Your task to perform on an android device: Show me popular videos on Youtube Image 0: 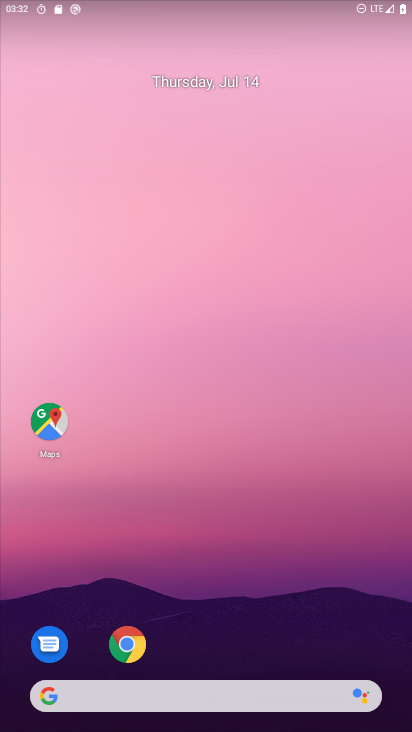
Step 0: click (294, 113)
Your task to perform on an android device: Show me popular videos on Youtube Image 1: 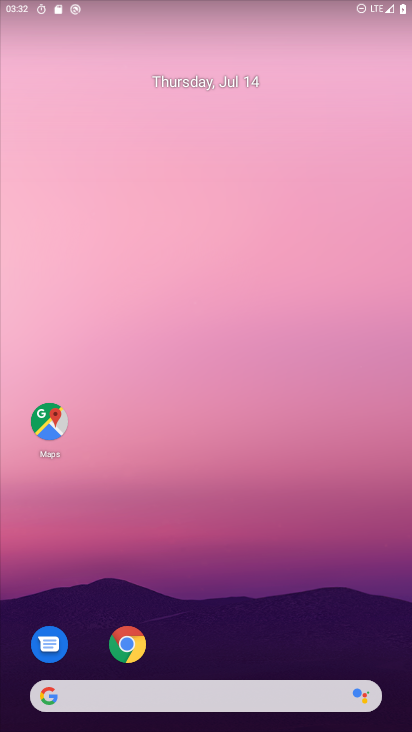
Step 1: drag from (219, 614) to (233, 0)
Your task to perform on an android device: Show me popular videos on Youtube Image 2: 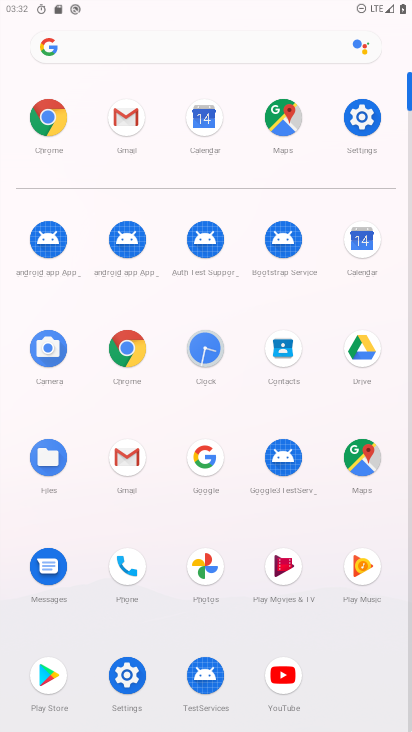
Step 2: click (287, 678)
Your task to perform on an android device: Show me popular videos on Youtube Image 3: 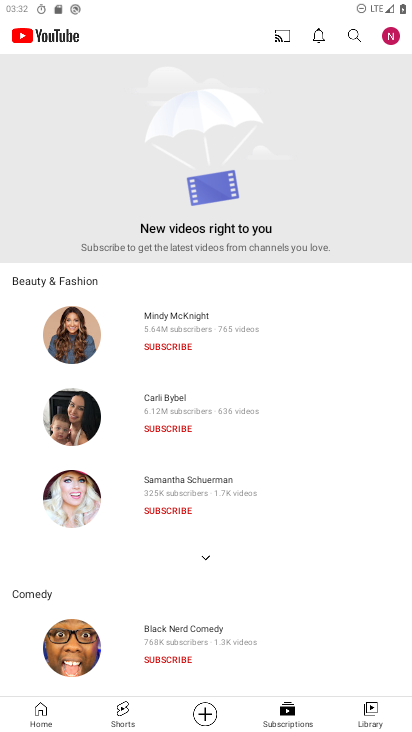
Step 3: click (36, 713)
Your task to perform on an android device: Show me popular videos on Youtube Image 4: 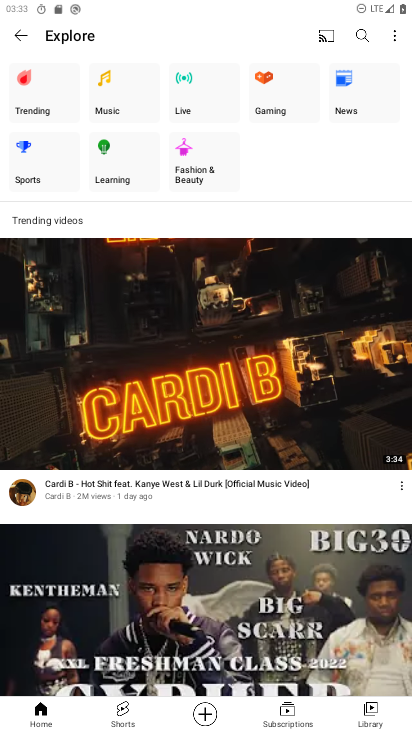
Step 4: task complete